Your task to perform on an android device: Open the map Image 0: 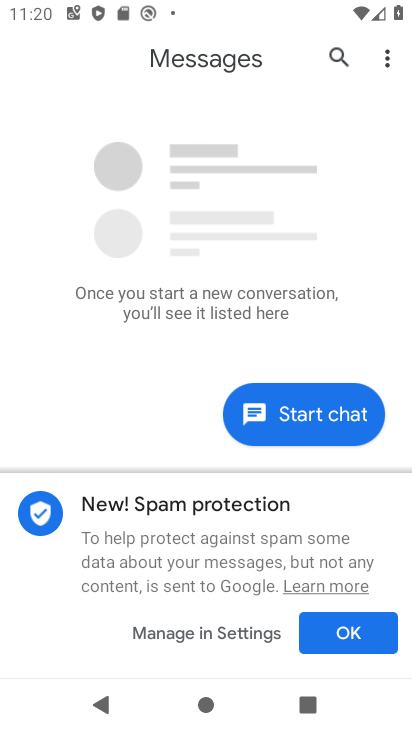
Step 0: press home button
Your task to perform on an android device: Open the map Image 1: 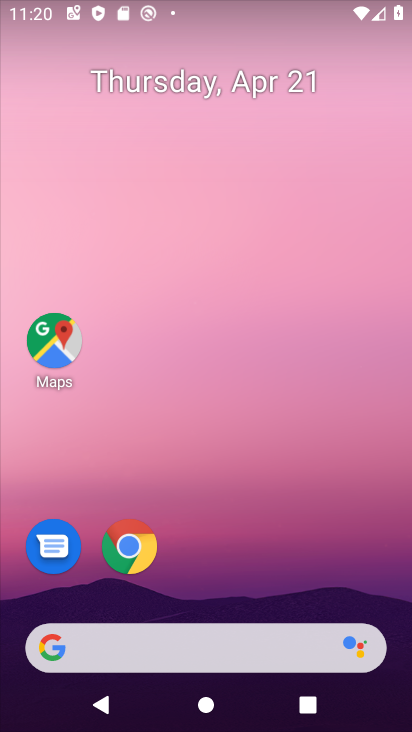
Step 1: click (54, 346)
Your task to perform on an android device: Open the map Image 2: 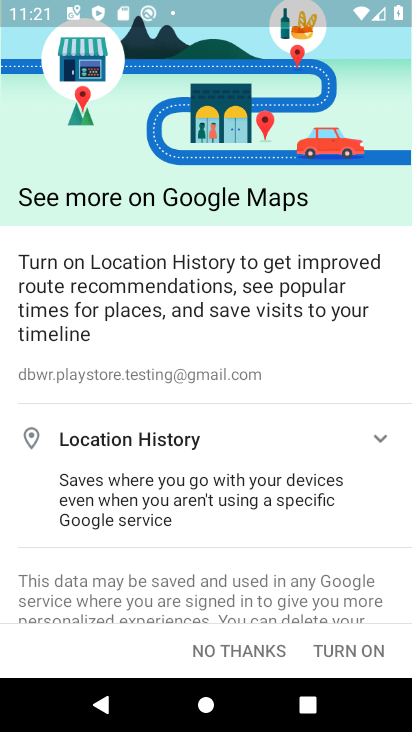
Step 2: task complete